Your task to perform on an android device: check data usage Image 0: 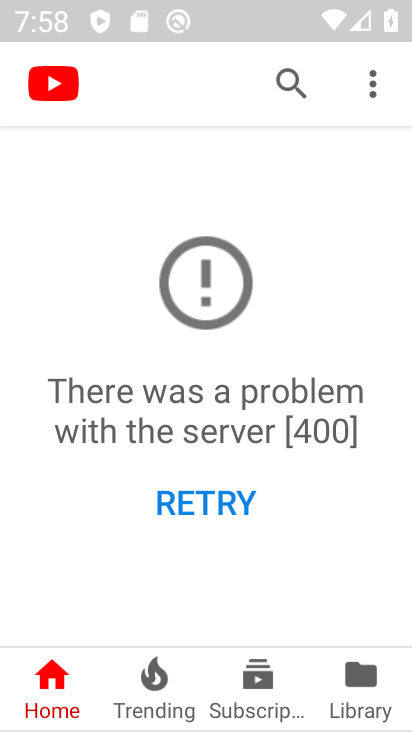
Step 0: press home button
Your task to perform on an android device: check data usage Image 1: 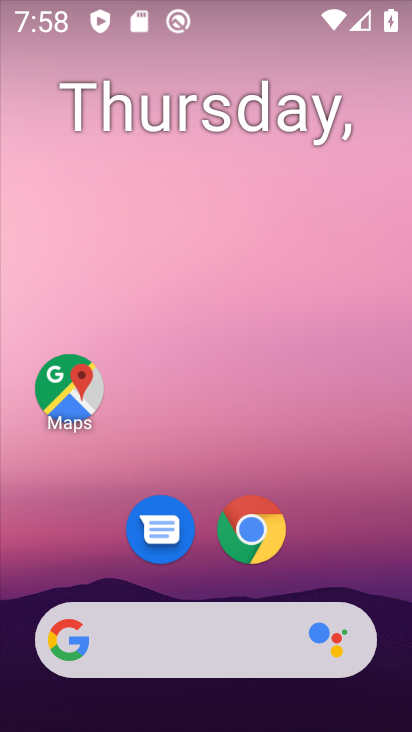
Step 1: drag from (109, 558) to (97, 56)
Your task to perform on an android device: check data usage Image 2: 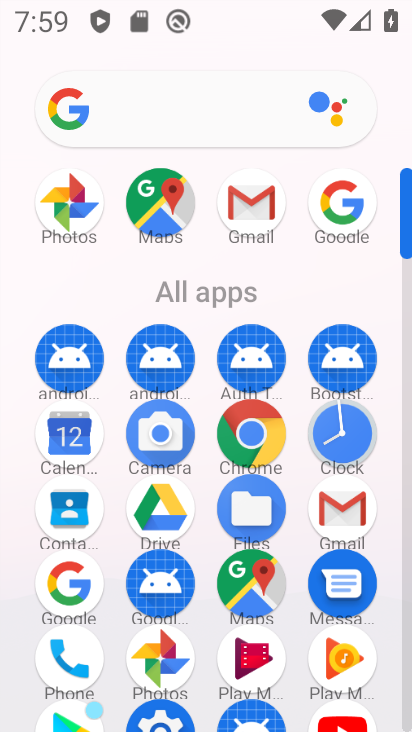
Step 2: drag from (109, 537) to (117, 324)
Your task to perform on an android device: check data usage Image 3: 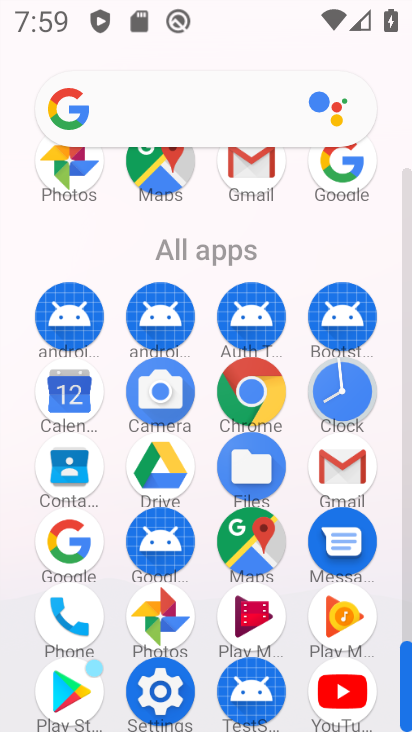
Step 3: click (160, 688)
Your task to perform on an android device: check data usage Image 4: 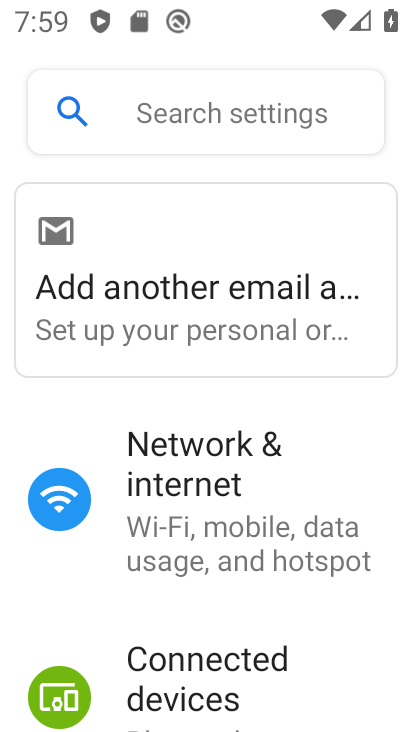
Step 4: click (210, 479)
Your task to perform on an android device: check data usage Image 5: 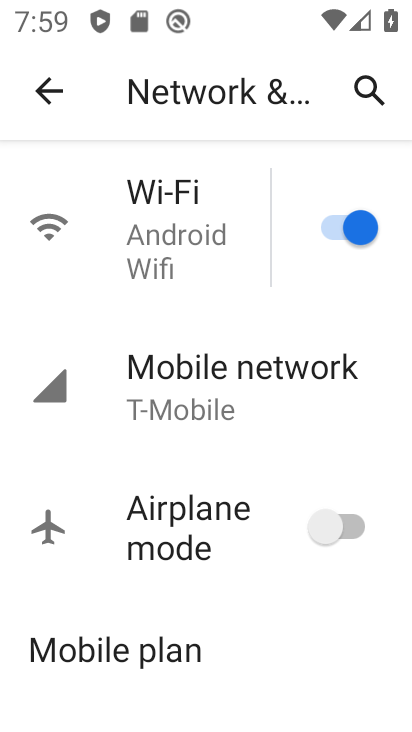
Step 5: click (190, 395)
Your task to perform on an android device: check data usage Image 6: 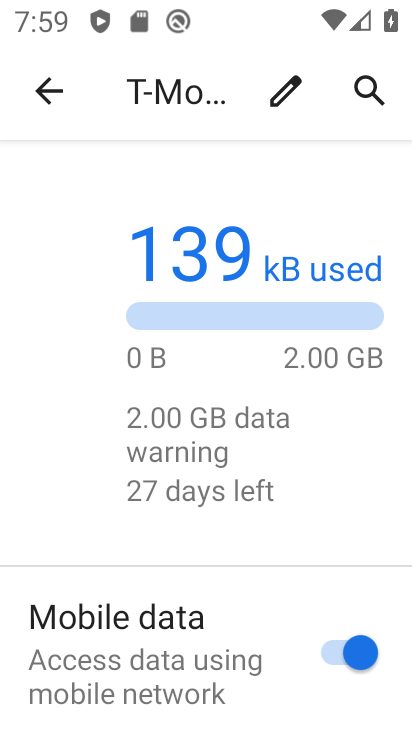
Step 6: task complete